Your task to perform on an android device: read, delete, or share a saved page in the chrome app Image 0: 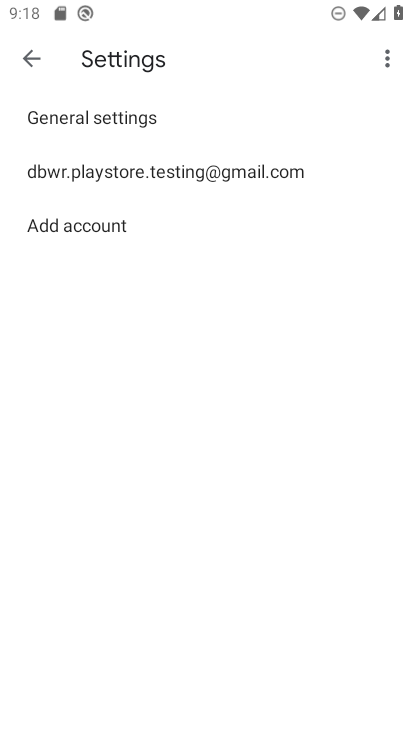
Step 0: press home button
Your task to perform on an android device: read, delete, or share a saved page in the chrome app Image 1: 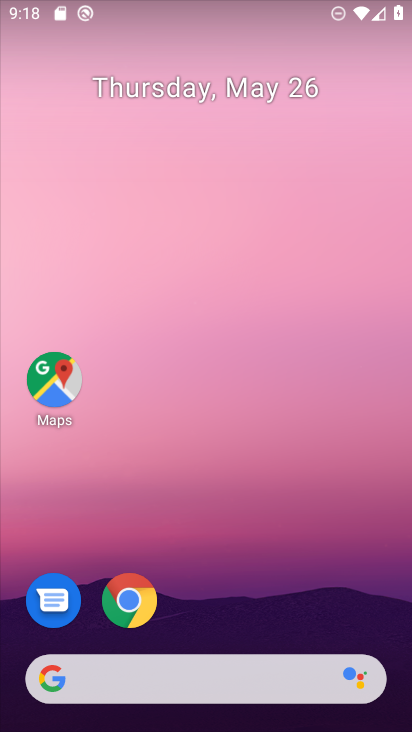
Step 1: click (110, 597)
Your task to perform on an android device: read, delete, or share a saved page in the chrome app Image 2: 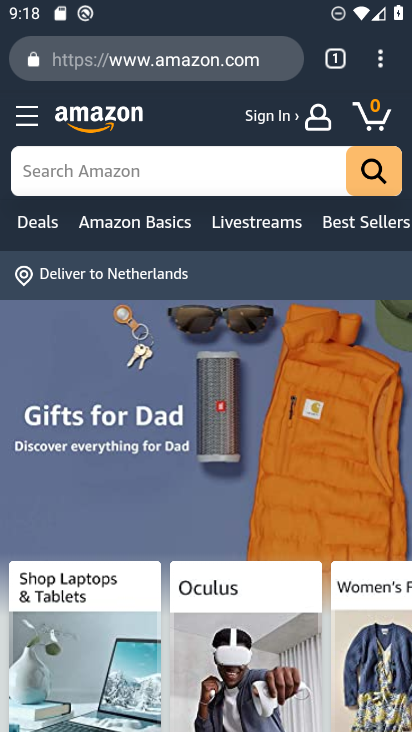
Step 2: click (378, 66)
Your task to perform on an android device: read, delete, or share a saved page in the chrome app Image 3: 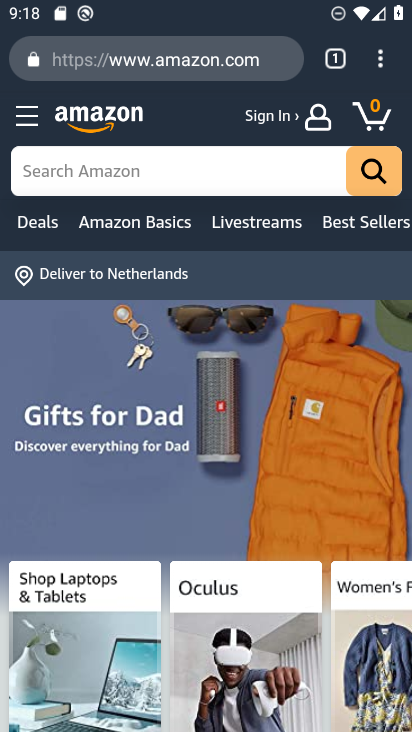
Step 3: click (382, 63)
Your task to perform on an android device: read, delete, or share a saved page in the chrome app Image 4: 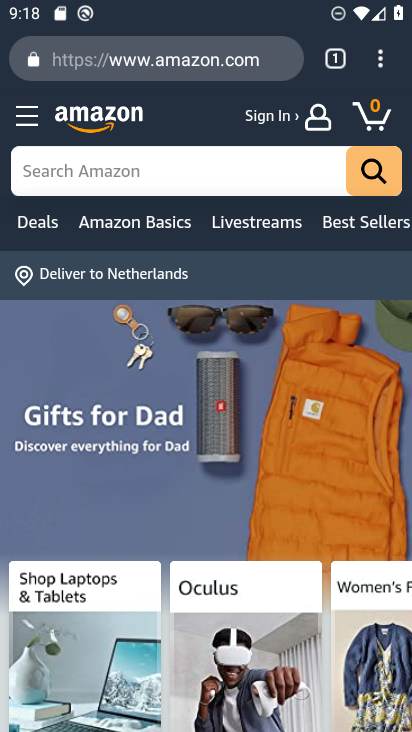
Step 4: click (375, 55)
Your task to perform on an android device: read, delete, or share a saved page in the chrome app Image 5: 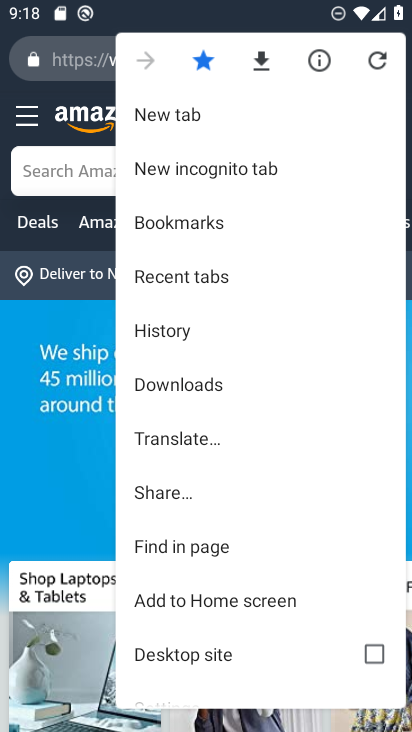
Step 5: click (164, 386)
Your task to perform on an android device: read, delete, or share a saved page in the chrome app Image 6: 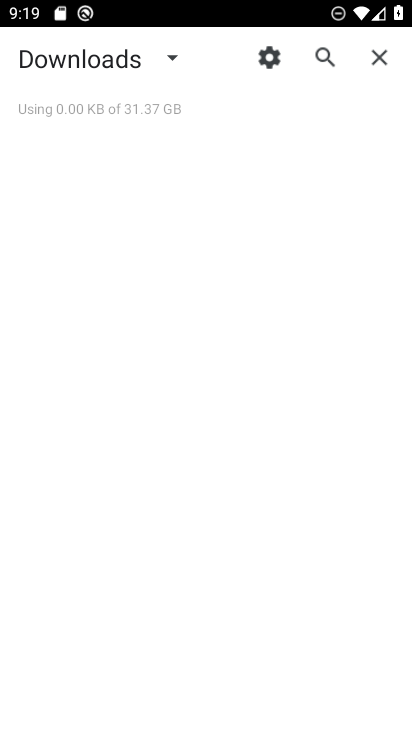
Step 6: click (173, 58)
Your task to perform on an android device: read, delete, or share a saved page in the chrome app Image 7: 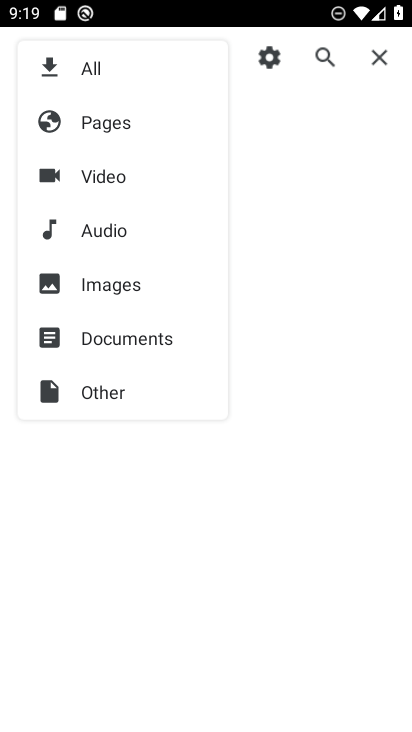
Step 7: click (112, 125)
Your task to perform on an android device: read, delete, or share a saved page in the chrome app Image 8: 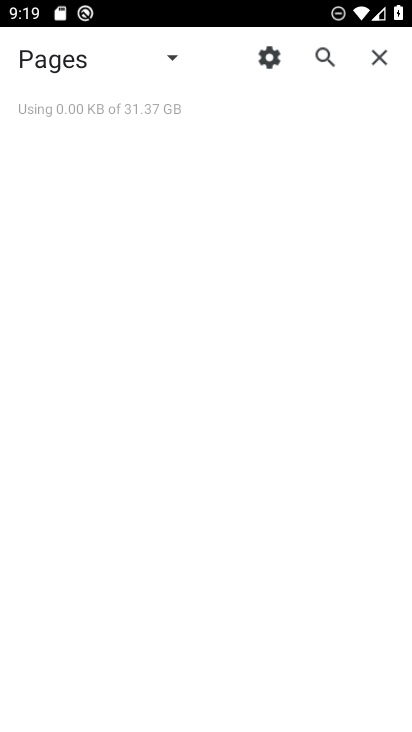
Step 8: task complete